Your task to perform on an android device: all mails in gmail Image 0: 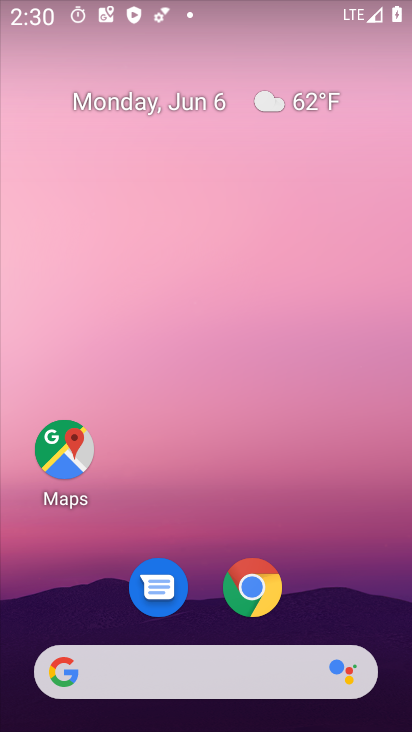
Step 0: drag from (334, 547) to (255, 78)
Your task to perform on an android device: all mails in gmail Image 1: 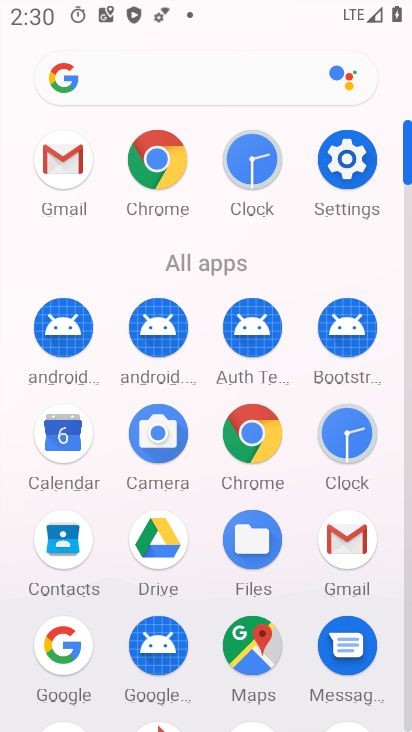
Step 1: drag from (14, 566) to (11, 302)
Your task to perform on an android device: all mails in gmail Image 2: 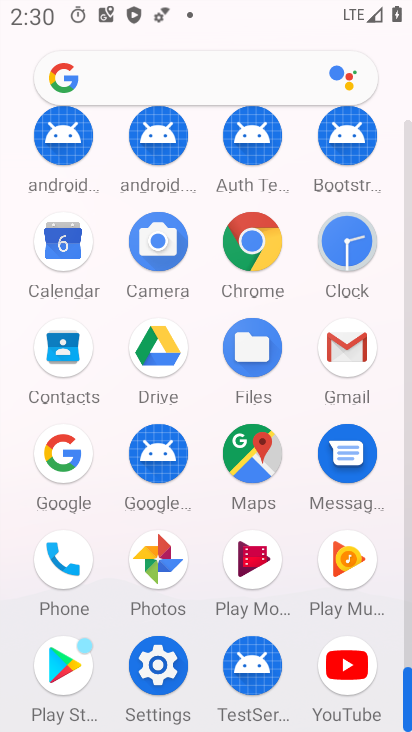
Step 2: click (345, 343)
Your task to perform on an android device: all mails in gmail Image 3: 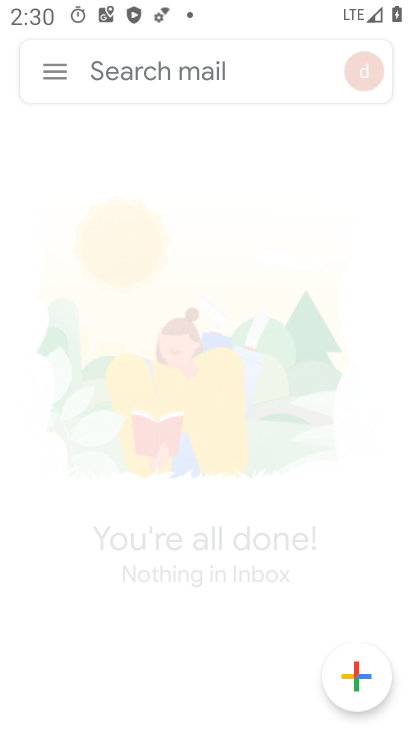
Step 3: click (63, 41)
Your task to perform on an android device: all mails in gmail Image 4: 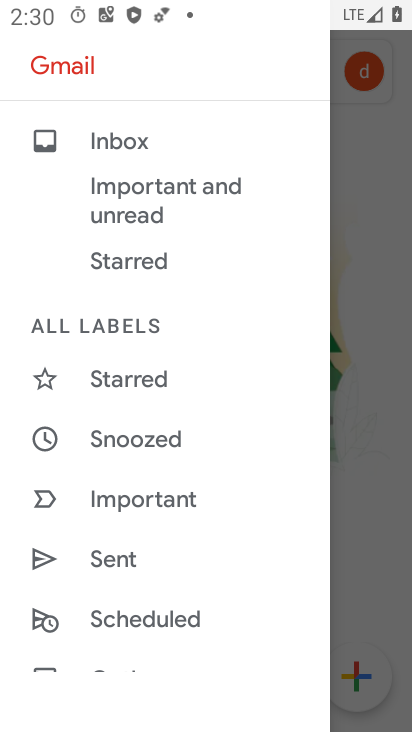
Step 4: drag from (150, 487) to (185, 187)
Your task to perform on an android device: all mails in gmail Image 5: 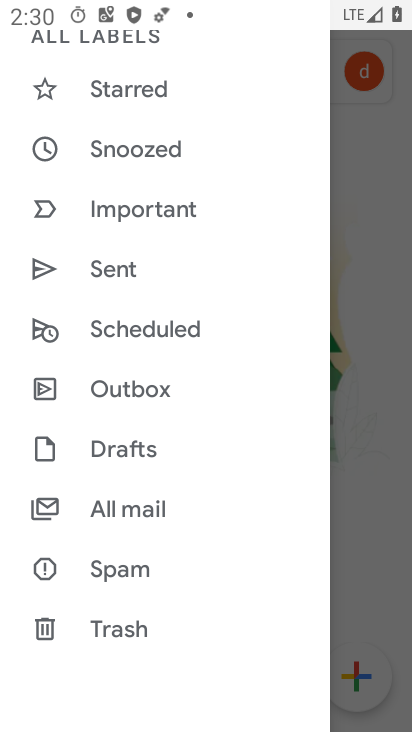
Step 5: click (142, 491)
Your task to perform on an android device: all mails in gmail Image 6: 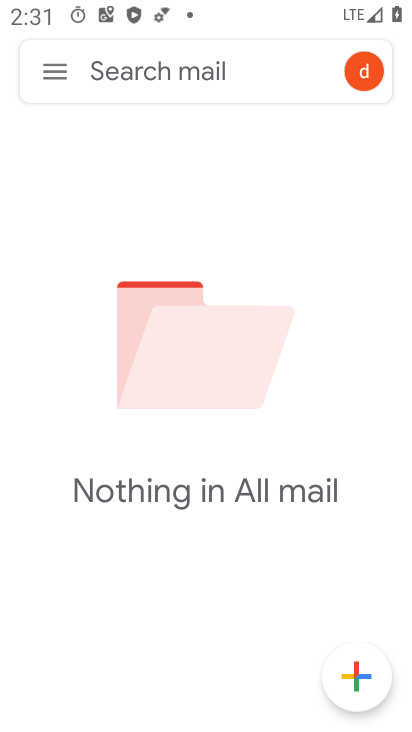
Step 6: task complete